Your task to perform on an android device: stop showing notifications on the lock screen Image 0: 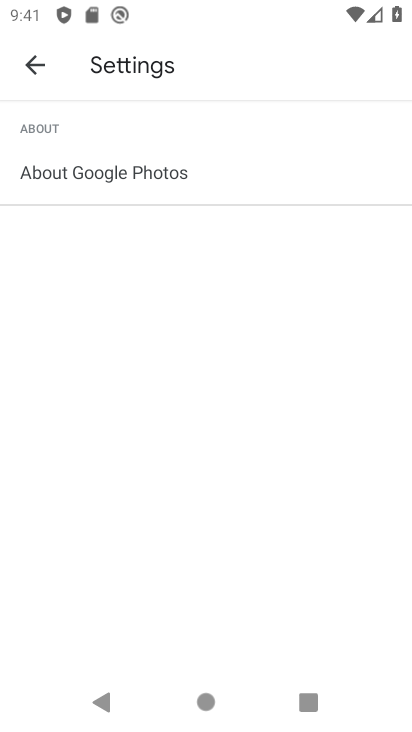
Step 0: press home button
Your task to perform on an android device: stop showing notifications on the lock screen Image 1: 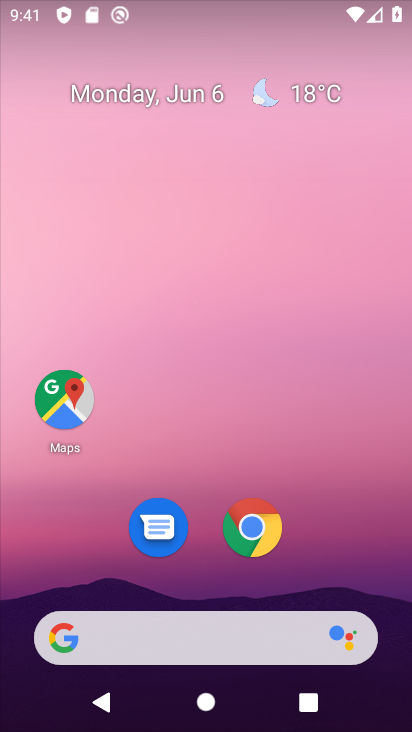
Step 1: drag from (387, 614) to (247, 108)
Your task to perform on an android device: stop showing notifications on the lock screen Image 2: 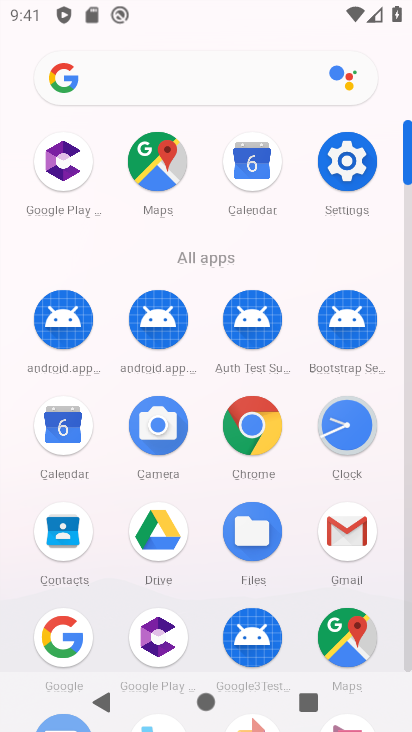
Step 2: click (354, 166)
Your task to perform on an android device: stop showing notifications on the lock screen Image 3: 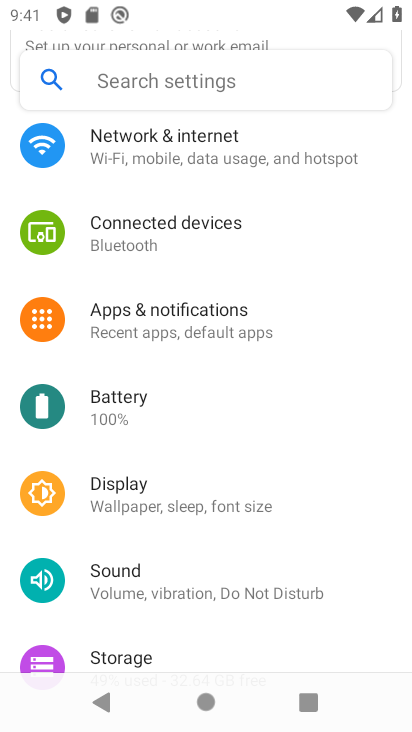
Step 3: click (273, 303)
Your task to perform on an android device: stop showing notifications on the lock screen Image 4: 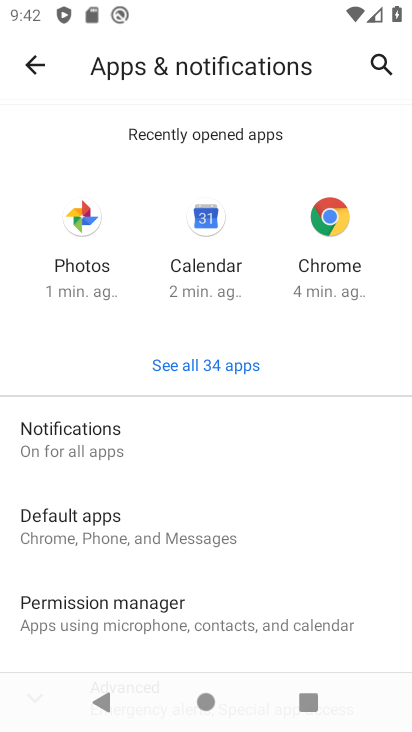
Step 4: click (233, 451)
Your task to perform on an android device: stop showing notifications on the lock screen Image 5: 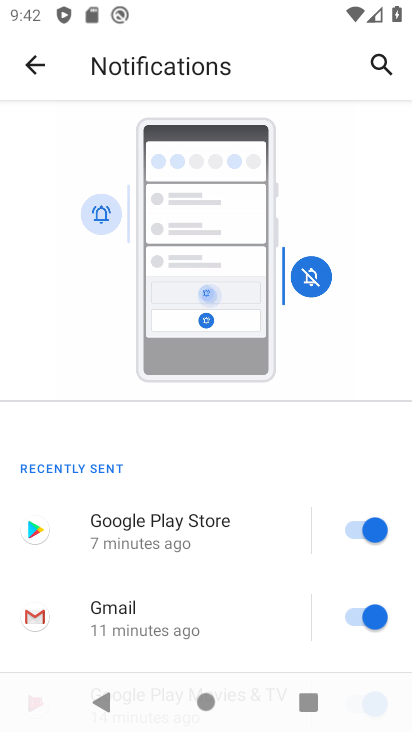
Step 5: drag from (285, 632) to (201, 31)
Your task to perform on an android device: stop showing notifications on the lock screen Image 6: 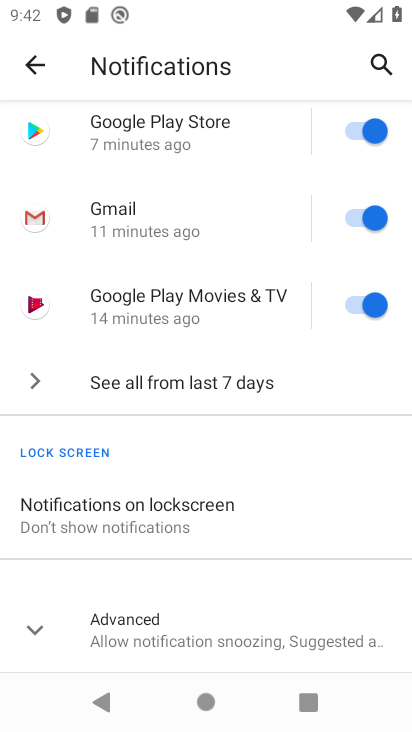
Step 6: click (235, 536)
Your task to perform on an android device: stop showing notifications on the lock screen Image 7: 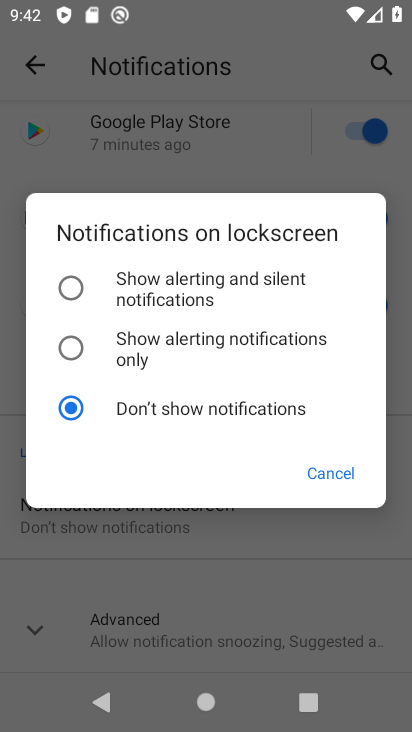
Step 7: task complete